Your task to perform on an android device: Turn on the flashlight Image 0: 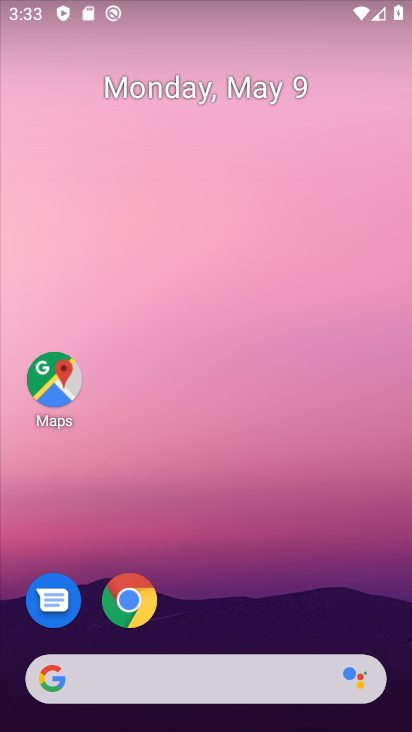
Step 0: drag from (274, 650) to (264, 36)
Your task to perform on an android device: Turn on the flashlight Image 1: 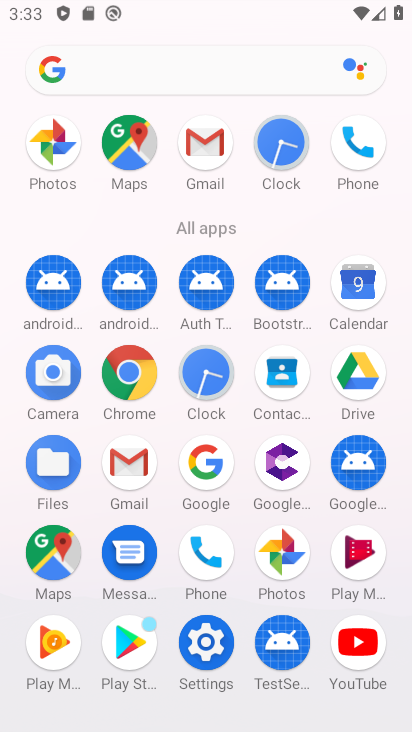
Step 1: task complete